Your task to perform on an android device: remove spam from my inbox in the gmail app Image 0: 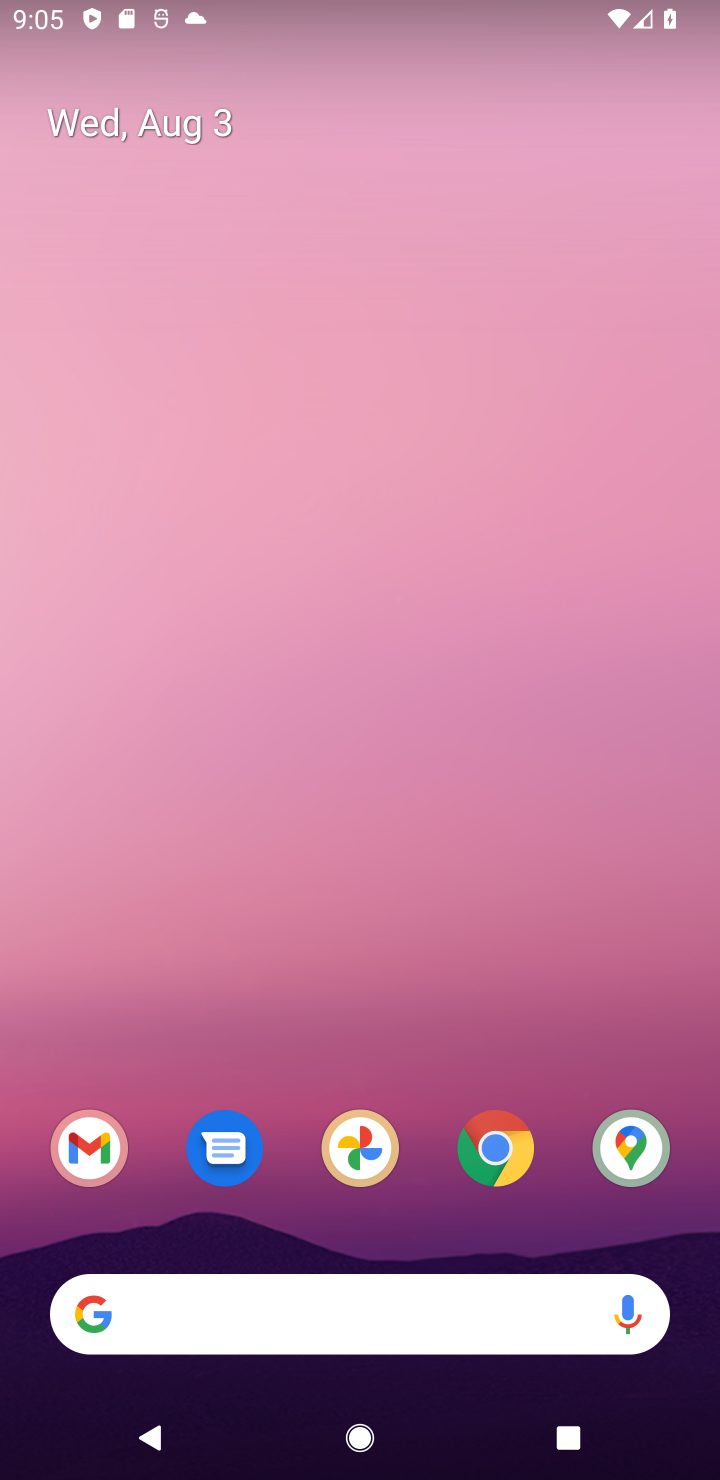
Step 0: drag from (551, 856) to (558, 429)
Your task to perform on an android device: remove spam from my inbox in the gmail app Image 1: 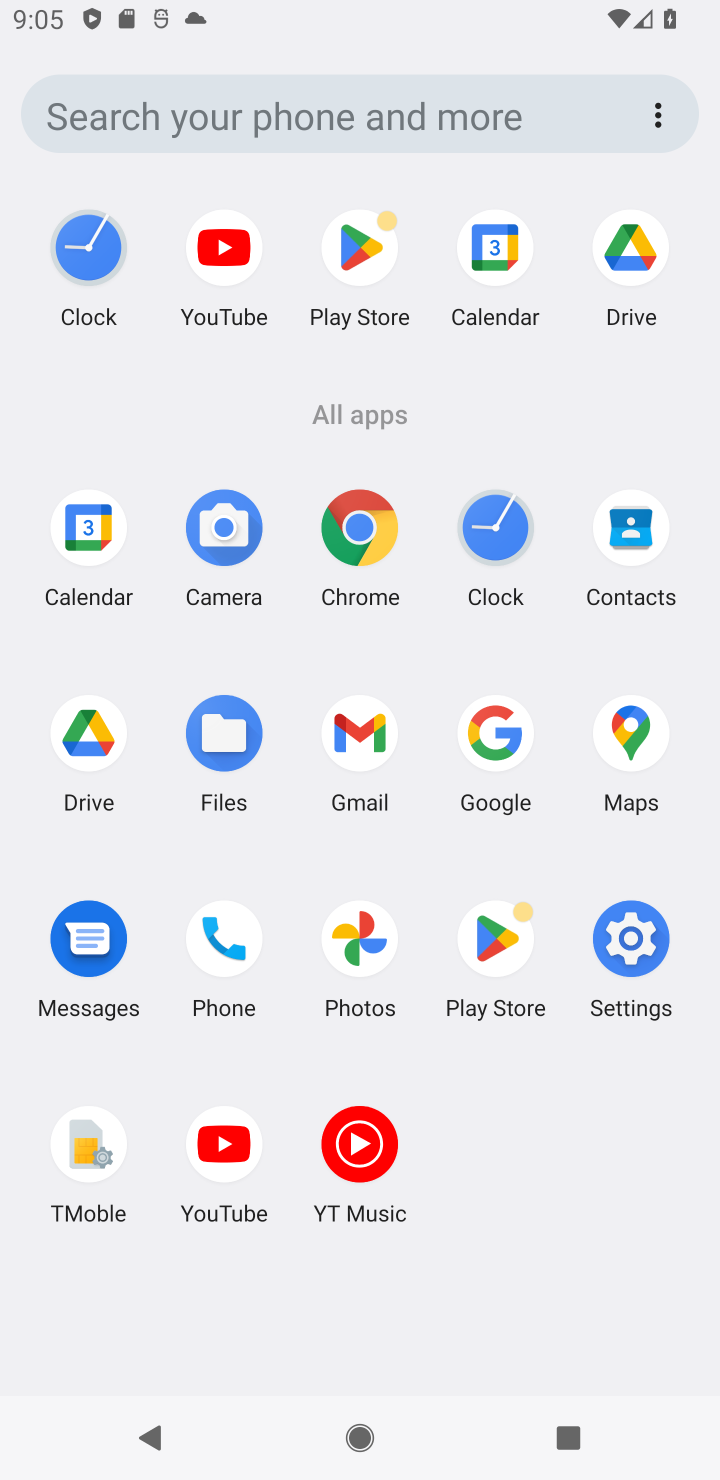
Step 1: click (485, 736)
Your task to perform on an android device: remove spam from my inbox in the gmail app Image 2: 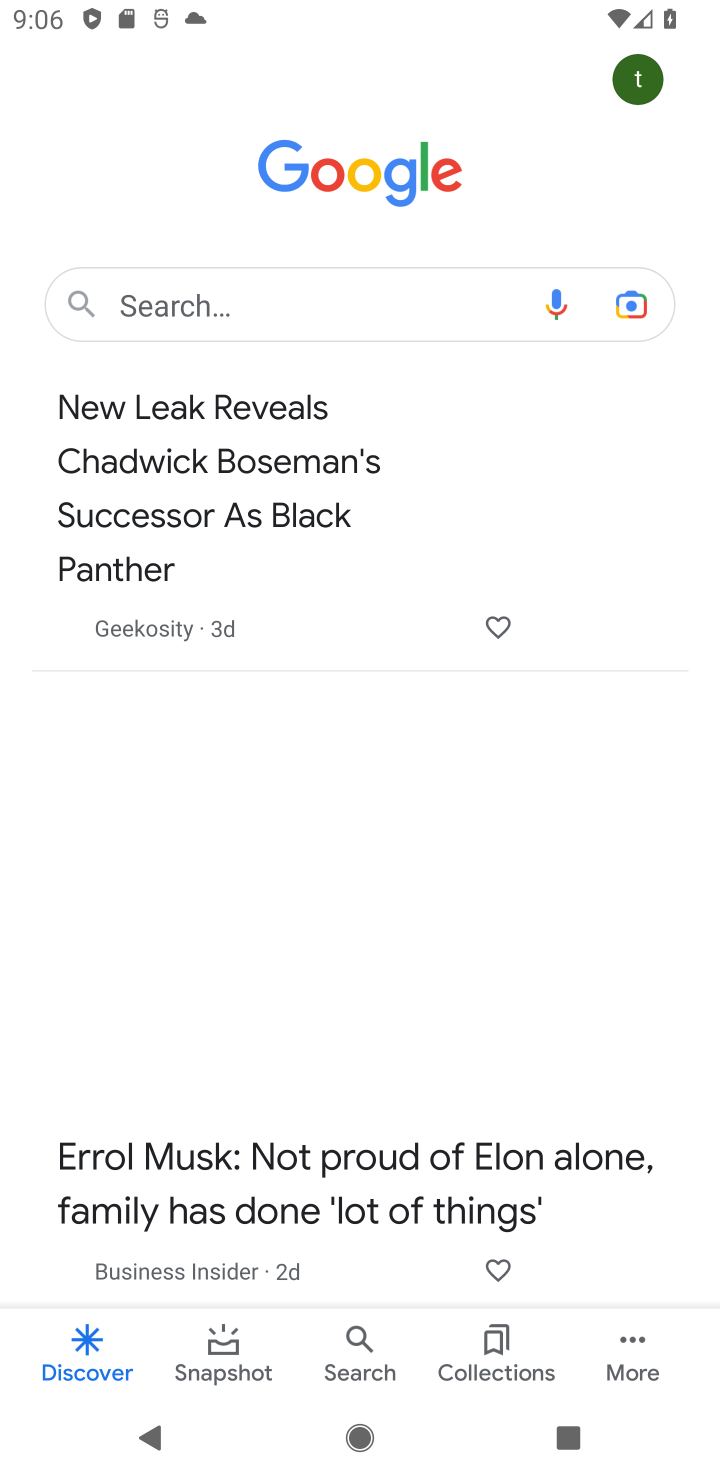
Step 2: press home button
Your task to perform on an android device: remove spam from my inbox in the gmail app Image 3: 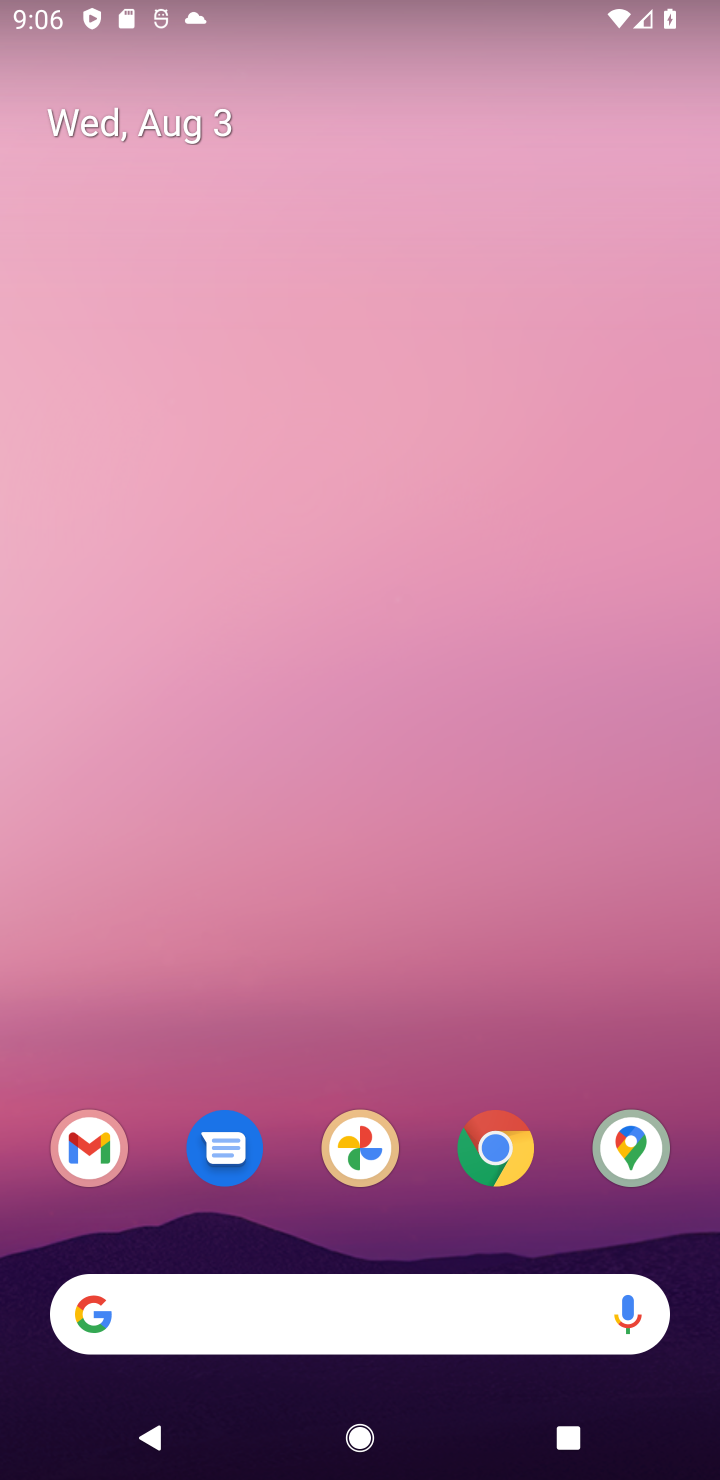
Step 3: drag from (393, 941) to (561, 94)
Your task to perform on an android device: remove spam from my inbox in the gmail app Image 4: 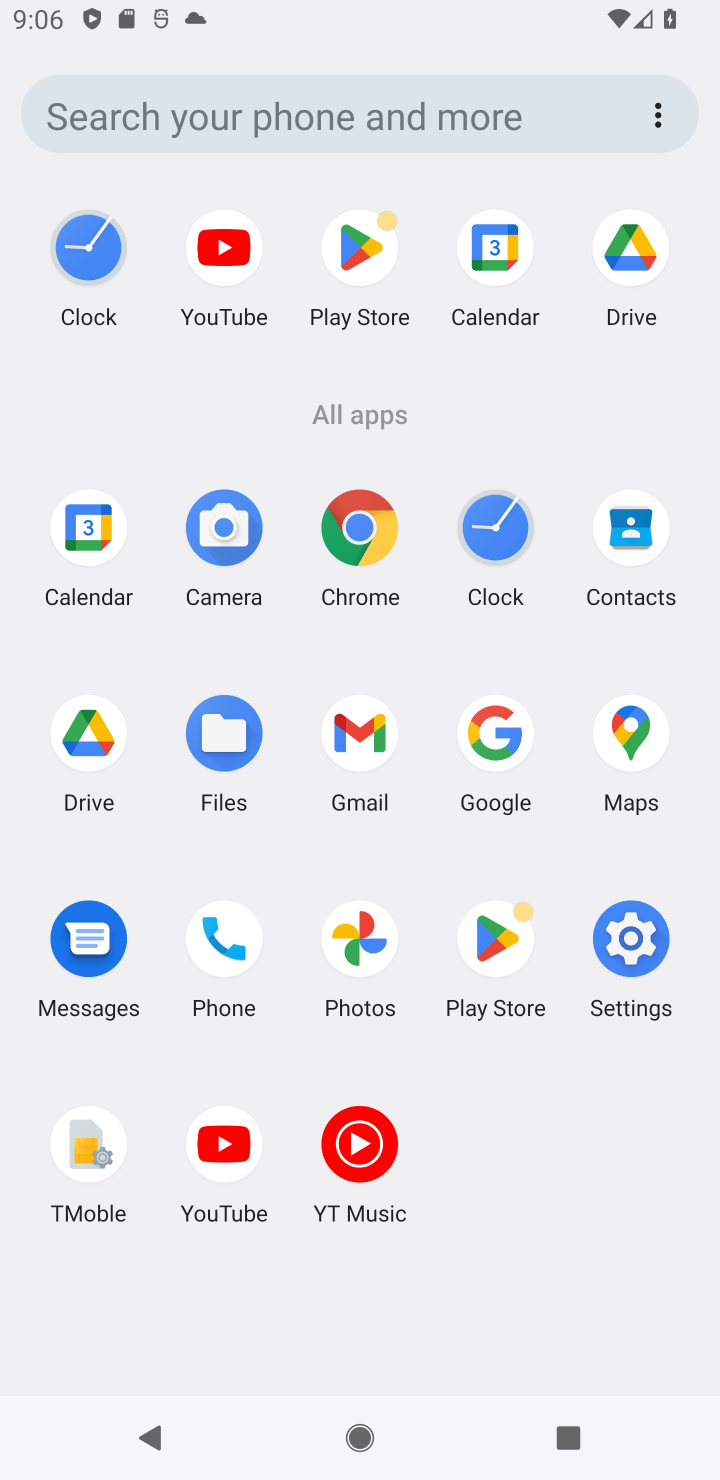
Step 4: click (353, 740)
Your task to perform on an android device: remove spam from my inbox in the gmail app Image 5: 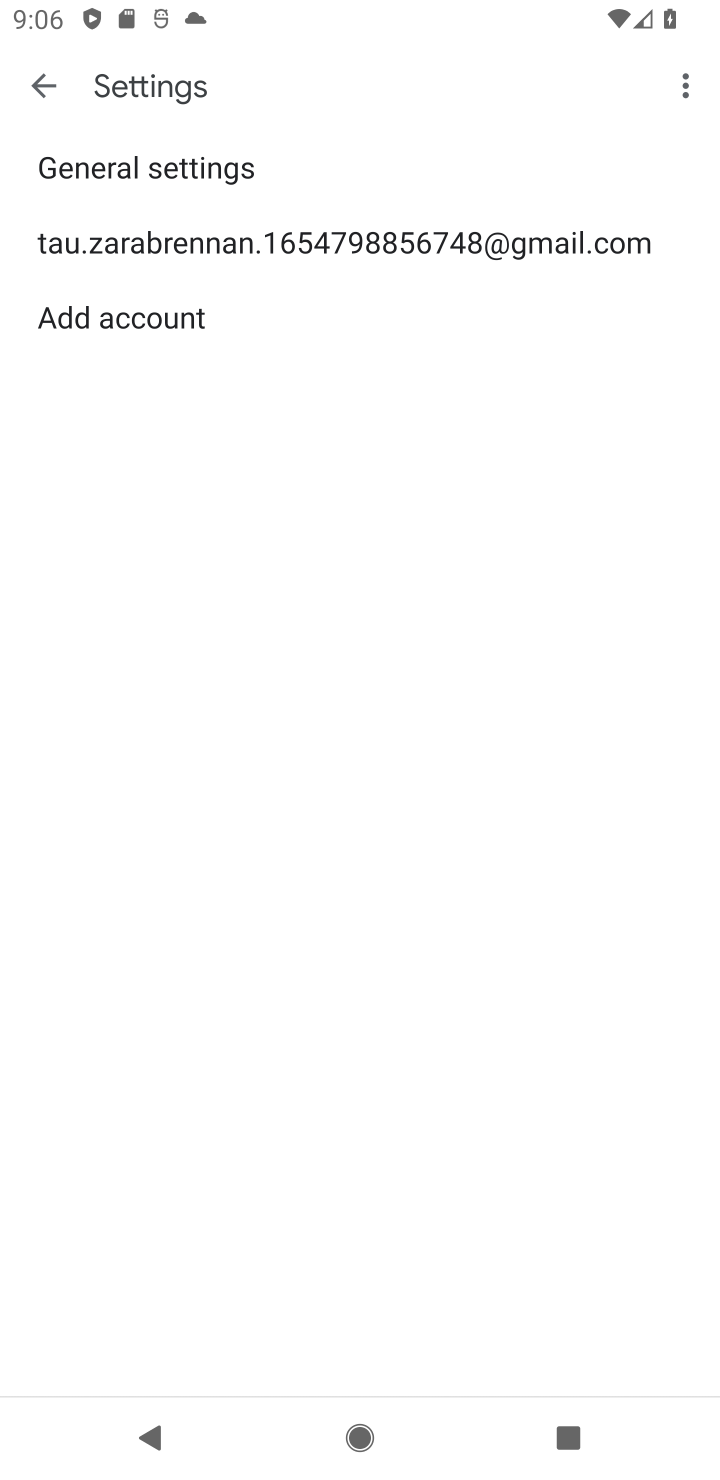
Step 5: click (37, 77)
Your task to perform on an android device: remove spam from my inbox in the gmail app Image 6: 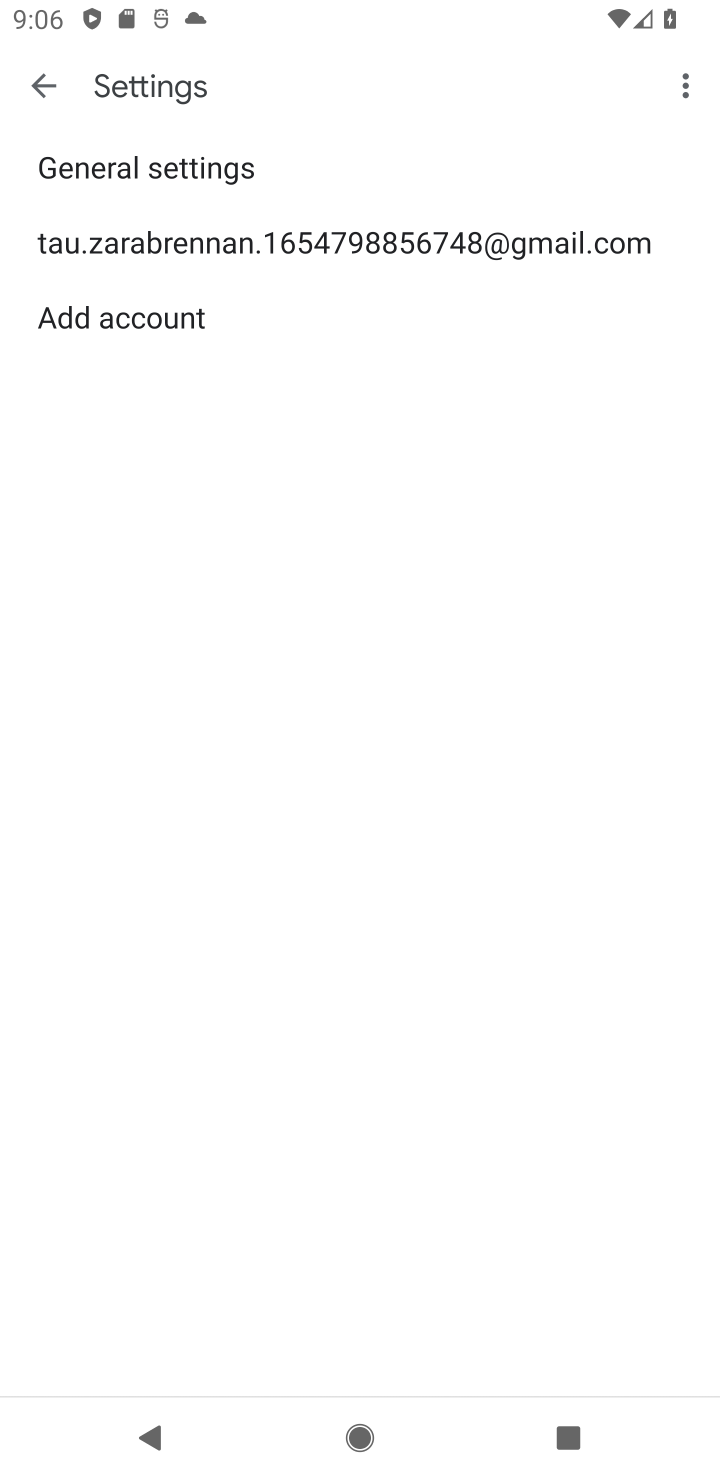
Step 6: click (38, 87)
Your task to perform on an android device: remove spam from my inbox in the gmail app Image 7: 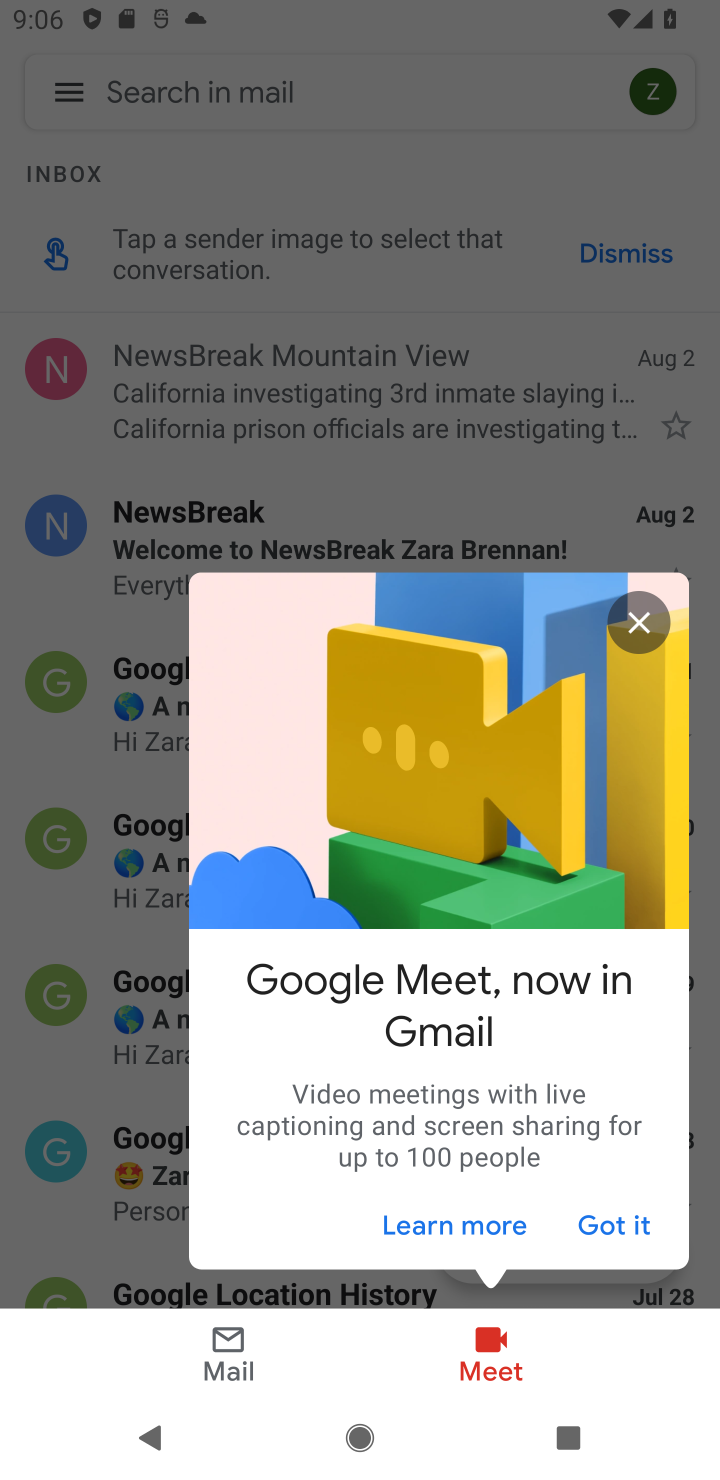
Step 7: click (599, 1226)
Your task to perform on an android device: remove spam from my inbox in the gmail app Image 8: 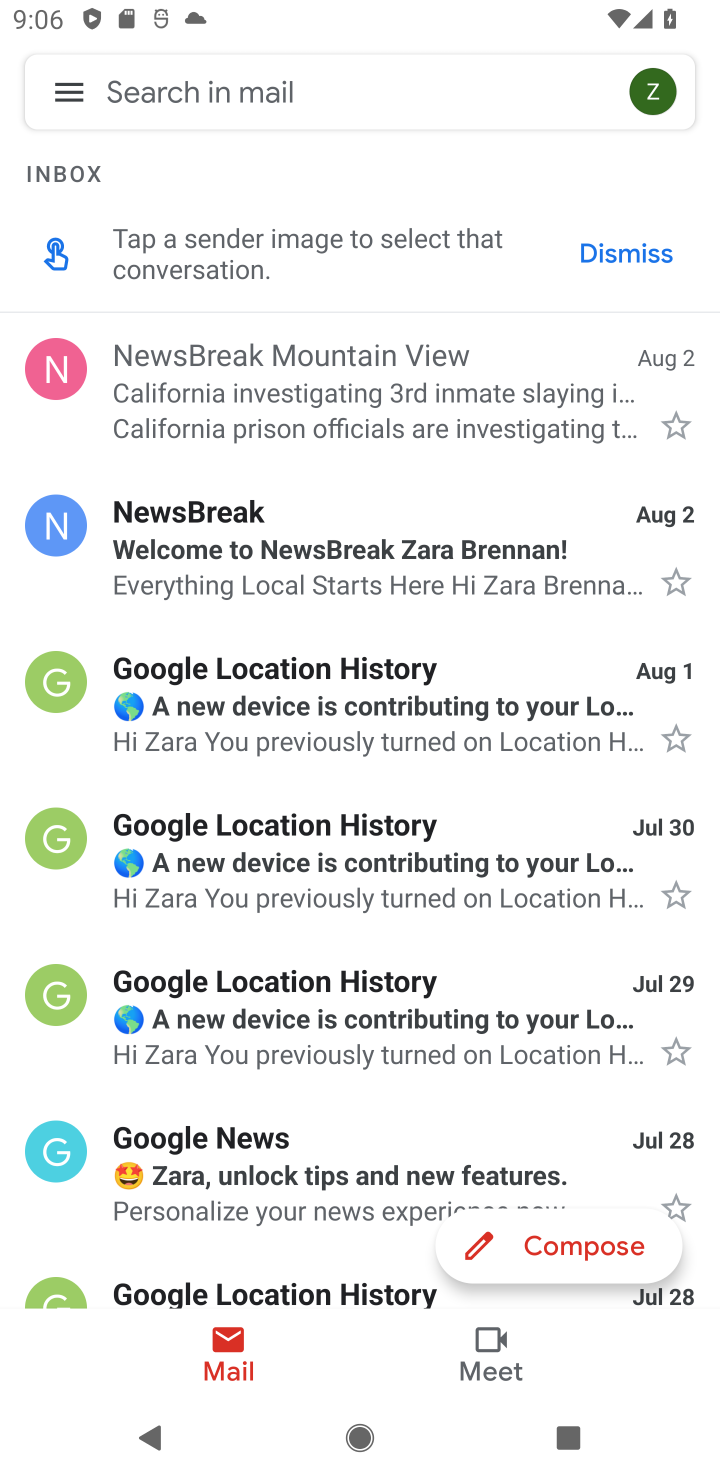
Step 8: click (66, 99)
Your task to perform on an android device: remove spam from my inbox in the gmail app Image 9: 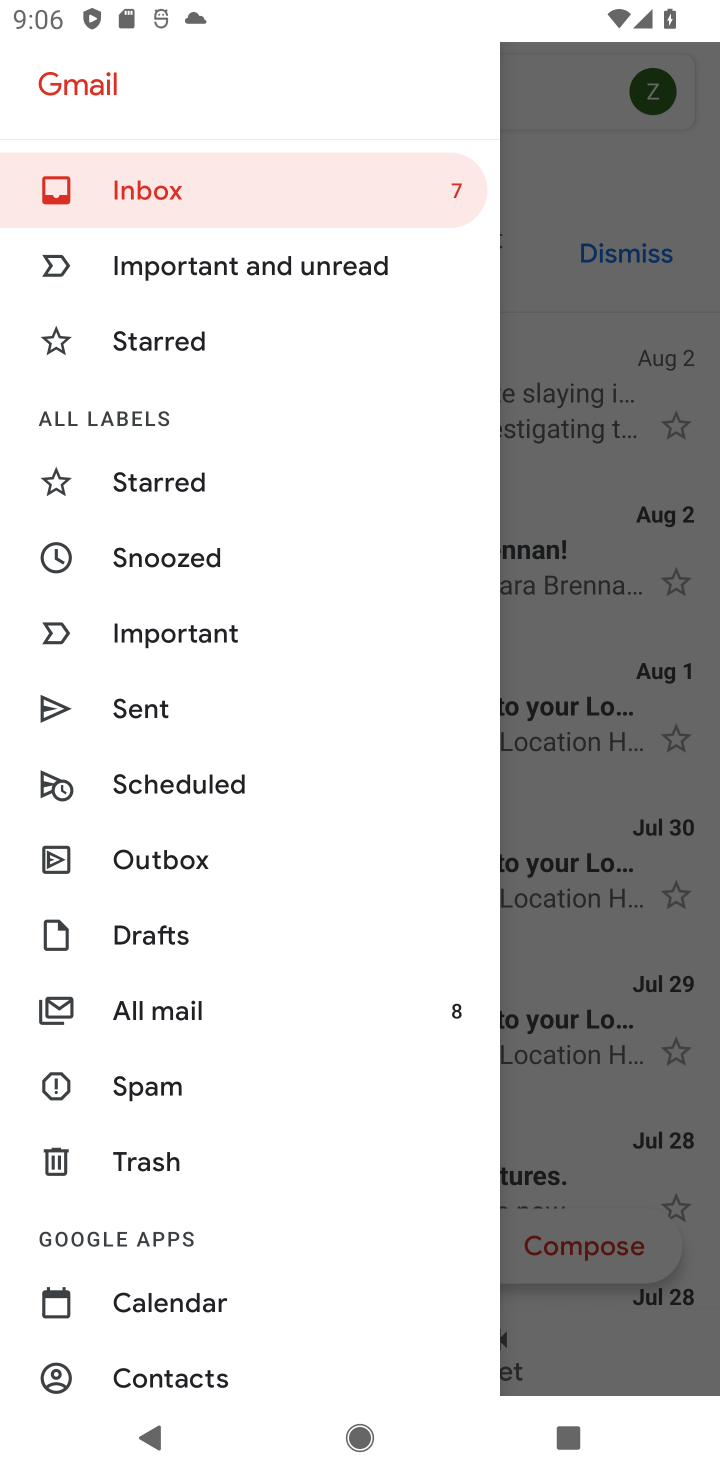
Step 9: click (155, 1091)
Your task to perform on an android device: remove spam from my inbox in the gmail app Image 10: 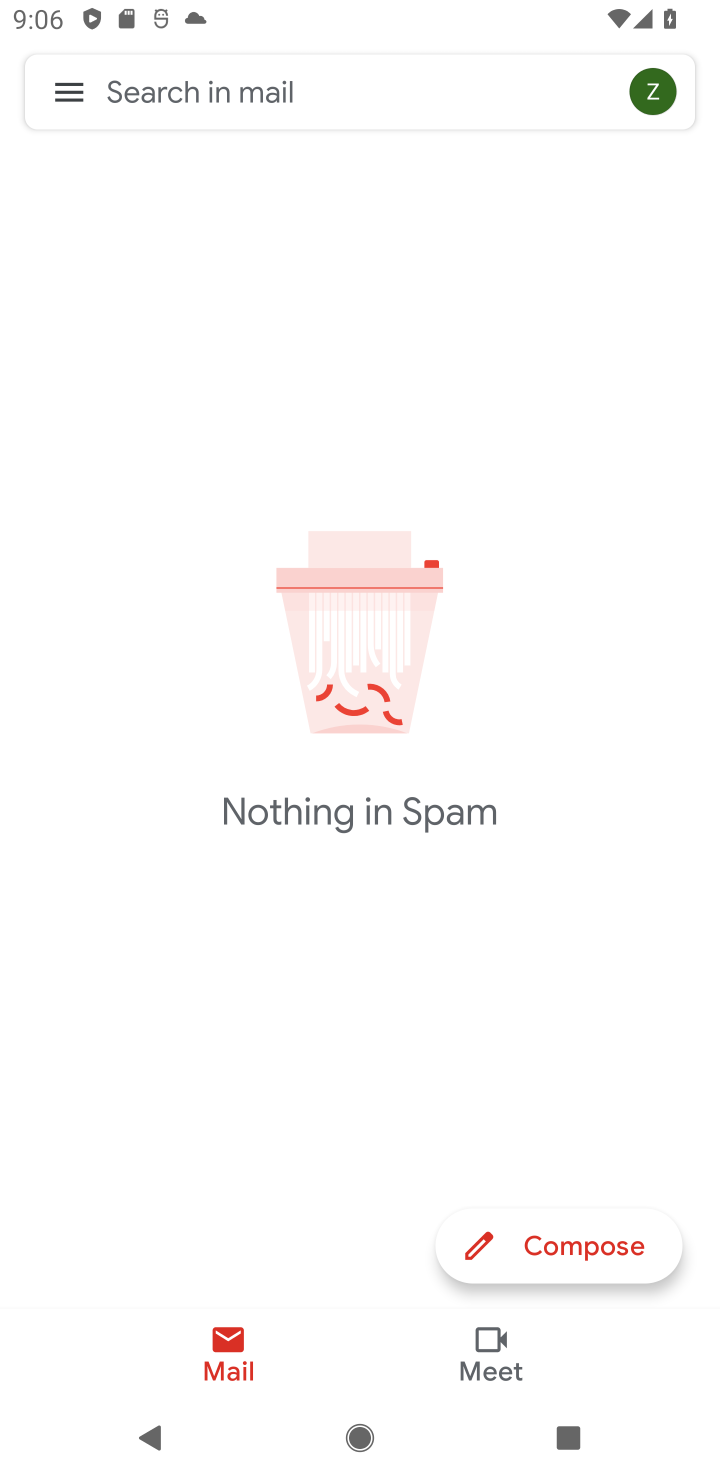
Step 10: task complete